Your task to perform on an android device: Go to network settings Image 0: 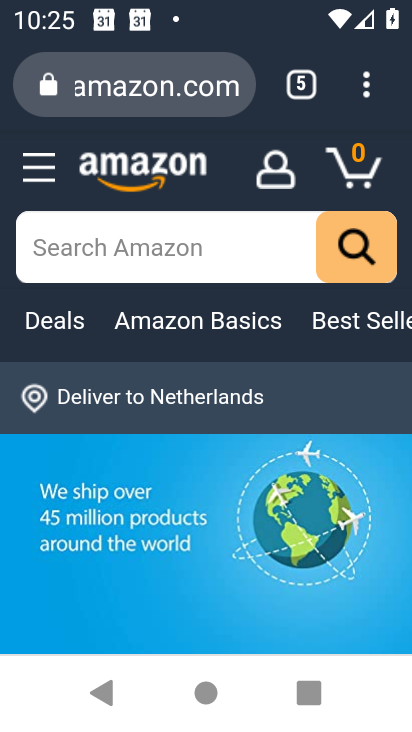
Step 0: press back button
Your task to perform on an android device: Go to network settings Image 1: 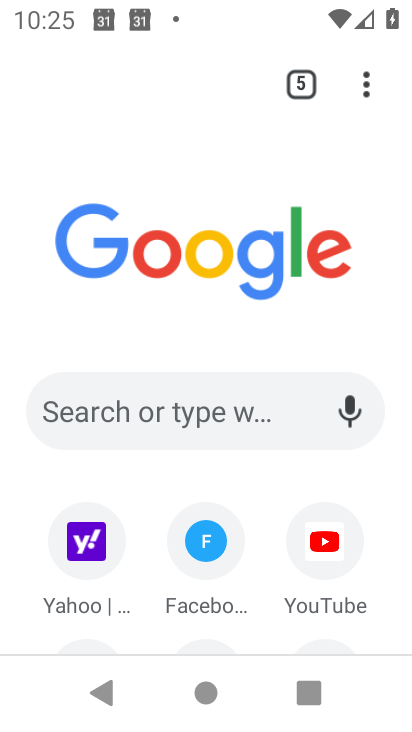
Step 1: press home button
Your task to perform on an android device: Go to network settings Image 2: 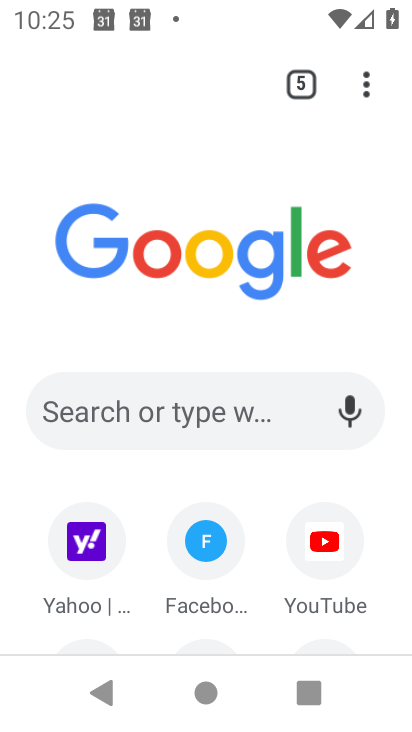
Step 2: press home button
Your task to perform on an android device: Go to network settings Image 3: 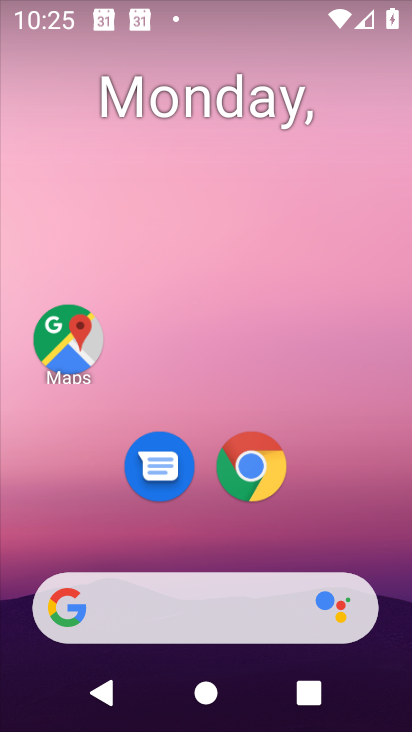
Step 3: drag from (366, 546) to (185, 127)
Your task to perform on an android device: Go to network settings Image 4: 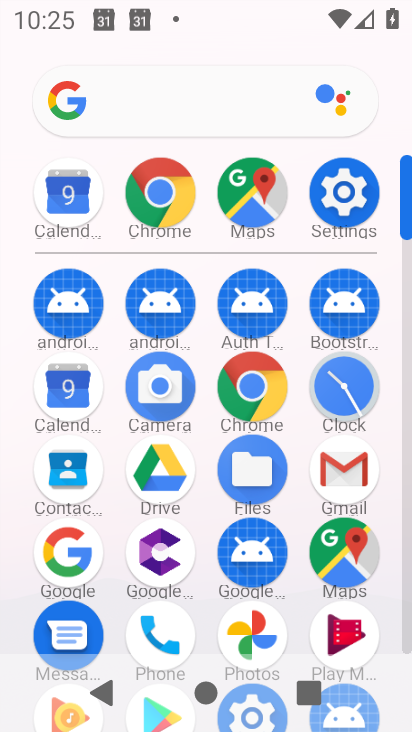
Step 4: click (373, 187)
Your task to perform on an android device: Go to network settings Image 5: 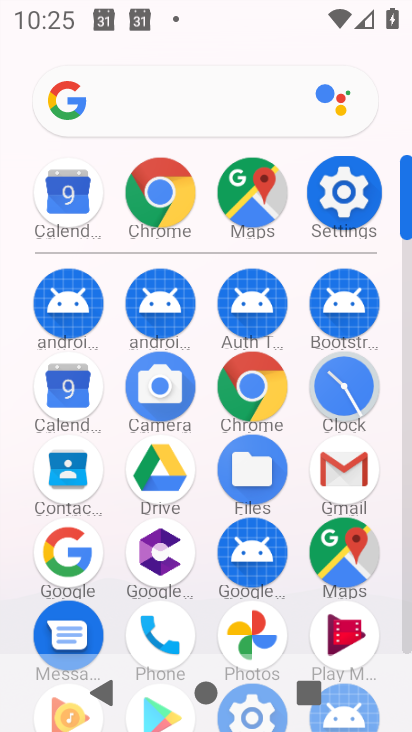
Step 5: click (352, 192)
Your task to perform on an android device: Go to network settings Image 6: 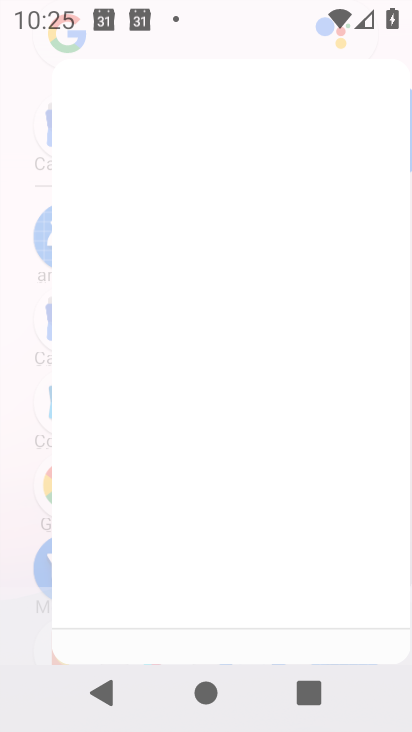
Step 6: click (355, 191)
Your task to perform on an android device: Go to network settings Image 7: 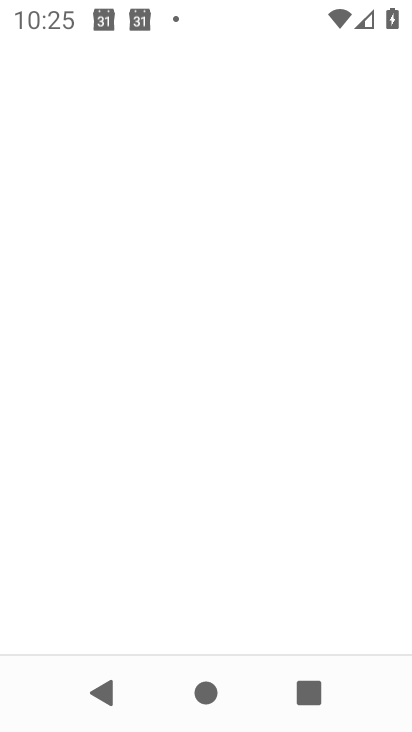
Step 7: click (355, 191)
Your task to perform on an android device: Go to network settings Image 8: 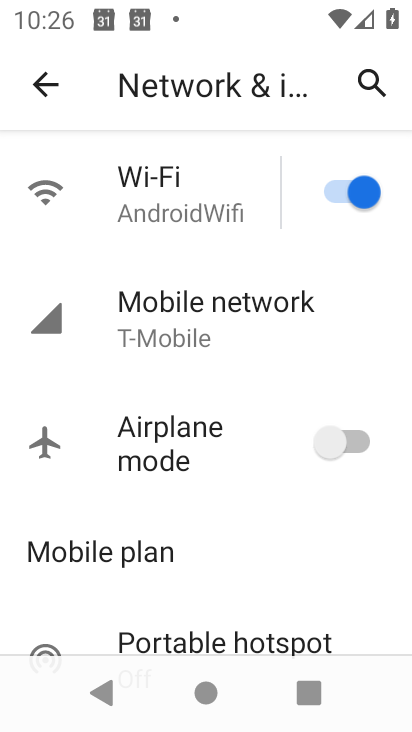
Step 8: task complete